Your task to perform on an android device: delete a single message in the gmail app Image 0: 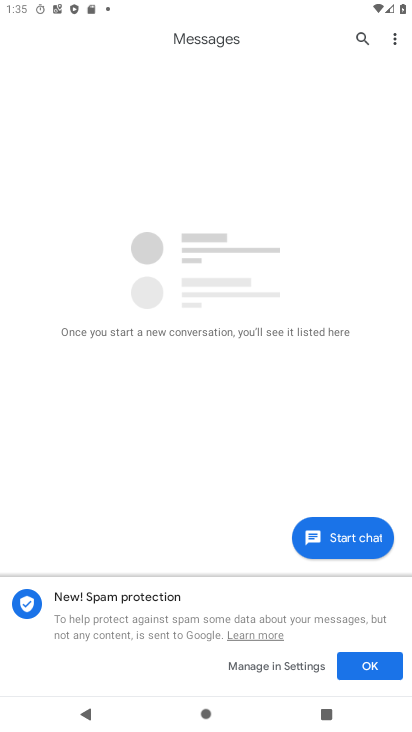
Step 0: press home button
Your task to perform on an android device: delete a single message in the gmail app Image 1: 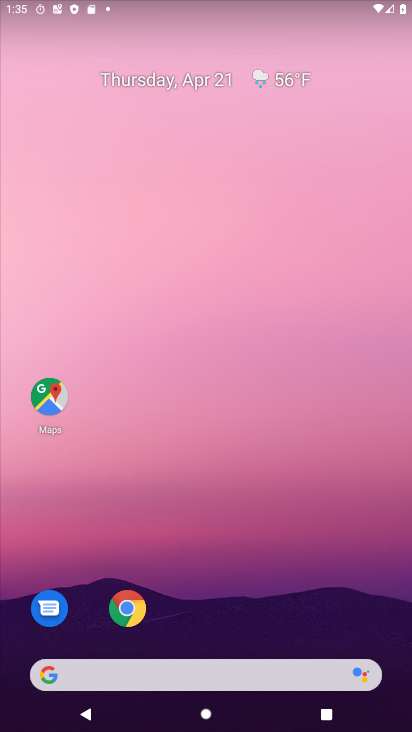
Step 1: drag from (291, 527) to (274, 80)
Your task to perform on an android device: delete a single message in the gmail app Image 2: 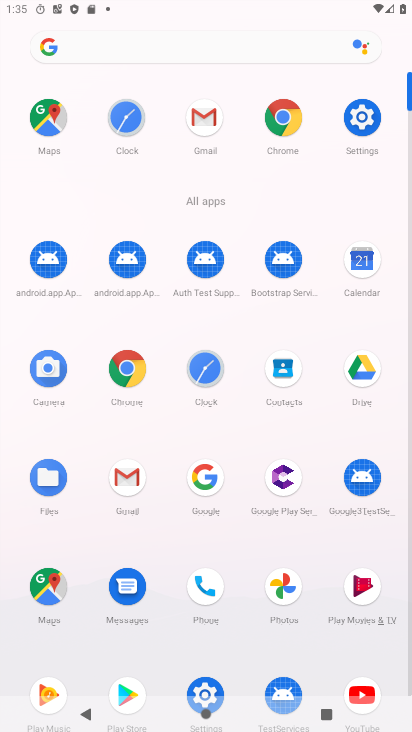
Step 2: click (198, 120)
Your task to perform on an android device: delete a single message in the gmail app Image 3: 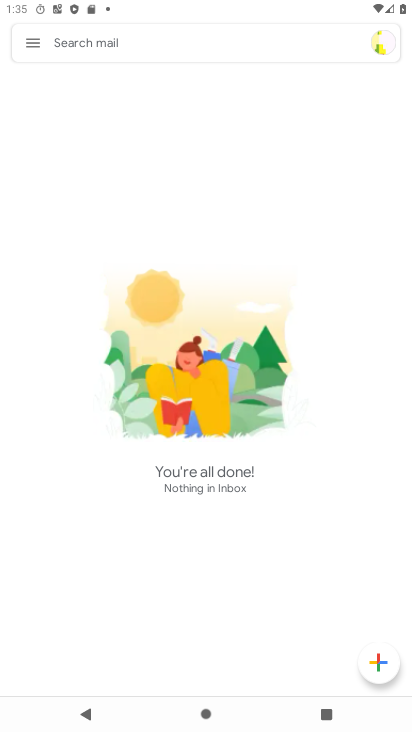
Step 3: click (35, 39)
Your task to perform on an android device: delete a single message in the gmail app Image 4: 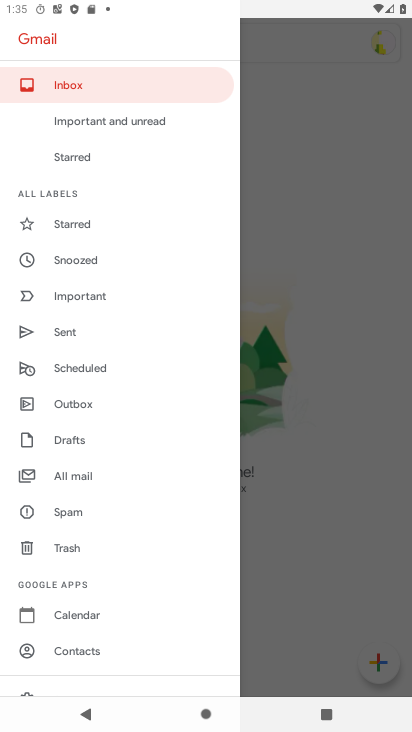
Step 4: click (85, 472)
Your task to perform on an android device: delete a single message in the gmail app Image 5: 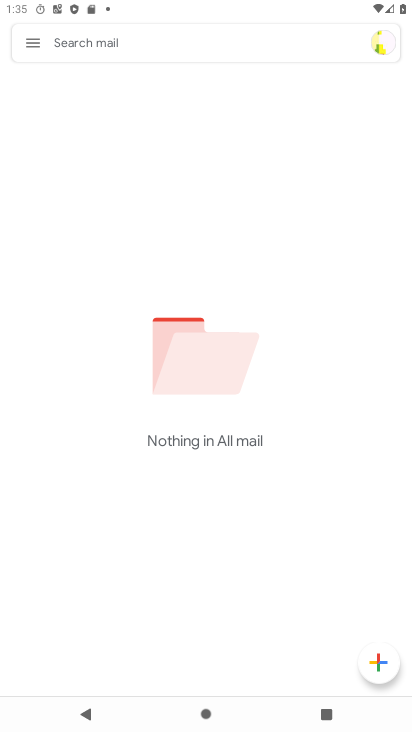
Step 5: task complete